Your task to perform on an android device: Open the map Image 0: 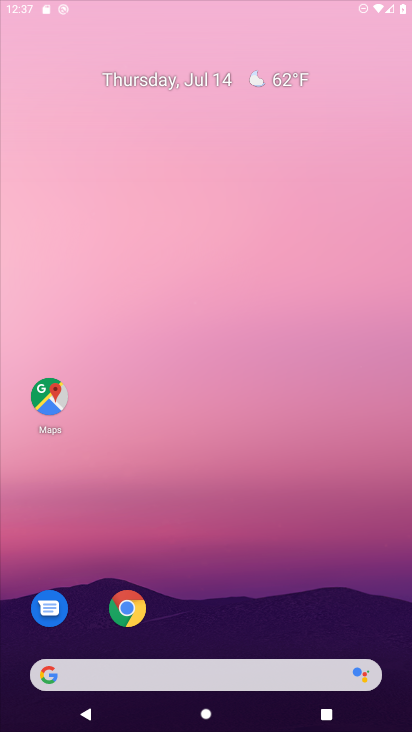
Step 0: drag from (225, 699) to (214, 625)
Your task to perform on an android device: Open the map Image 1: 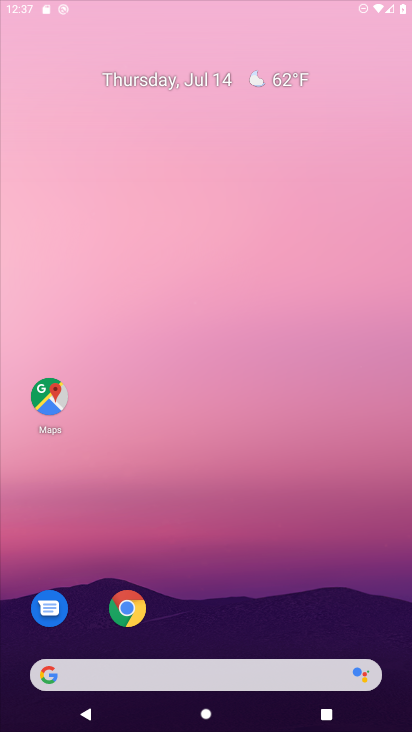
Step 1: drag from (213, 153) to (213, 47)
Your task to perform on an android device: Open the map Image 2: 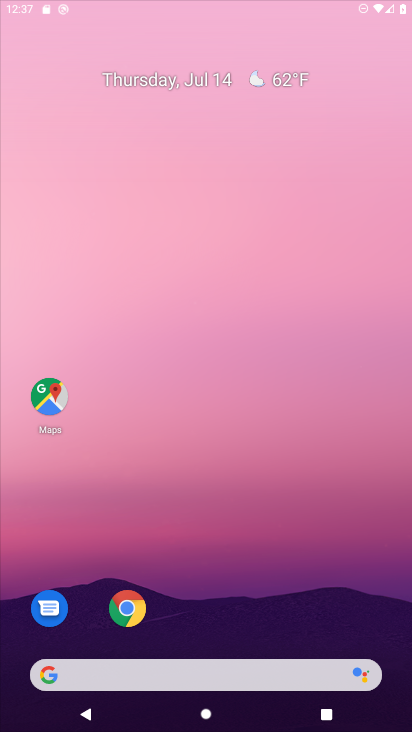
Step 2: drag from (263, 720) to (255, 549)
Your task to perform on an android device: Open the map Image 3: 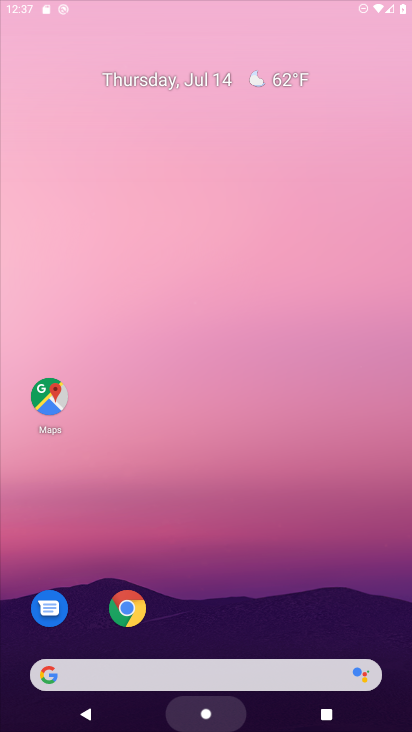
Step 3: drag from (240, 178) to (235, 133)
Your task to perform on an android device: Open the map Image 4: 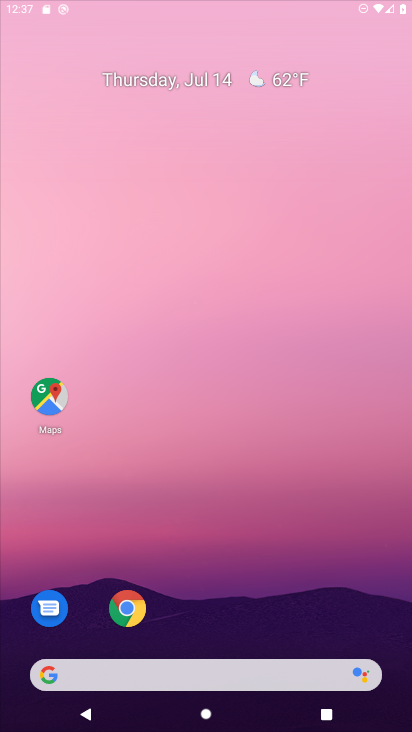
Step 4: click (43, 393)
Your task to perform on an android device: Open the map Image 5: 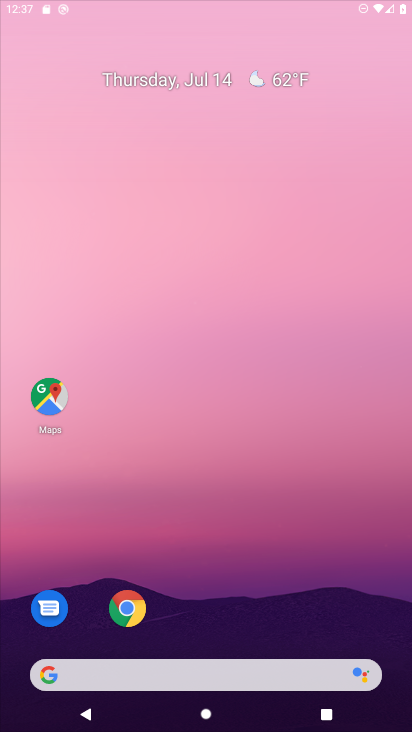
Step 5: click (49, 396)
Your task to perform on an android device: Open the map Image 6: 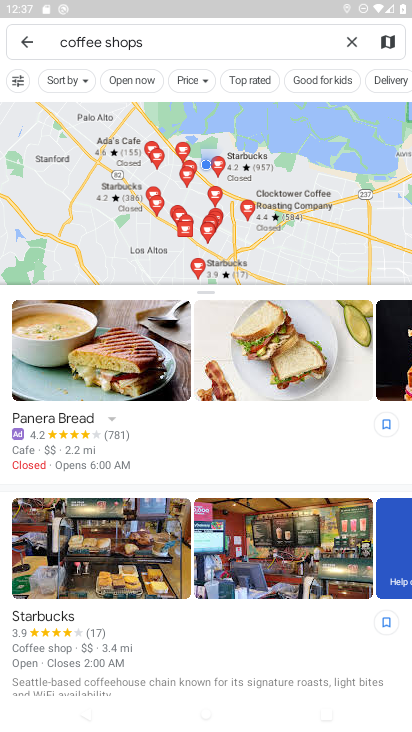
Step 6: task complete